Your task to perform on an android device: check battery use Image 0: 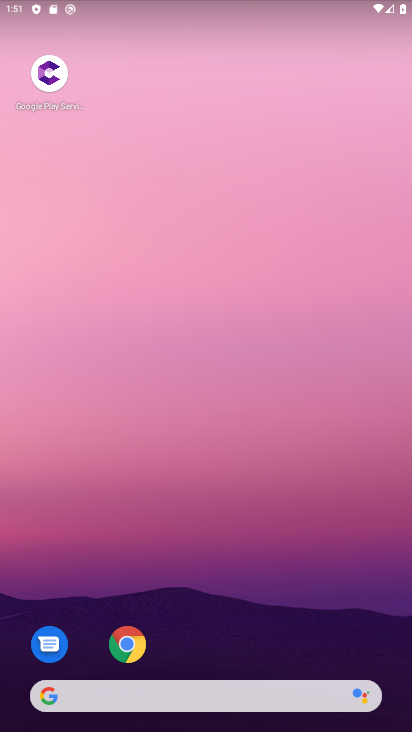
Step 0: drag from (330, 582) to (207, 3)
Your task to perform on an android device: check battery use Image 1: 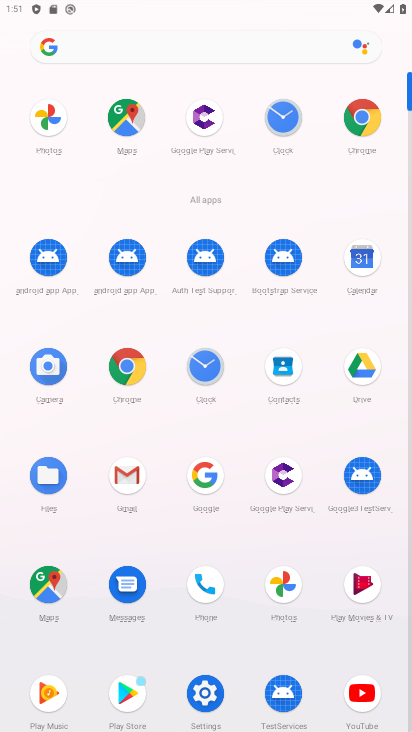
Step 1: click (196, 714)
Your task to perform on an android device: check battery use Image 2: 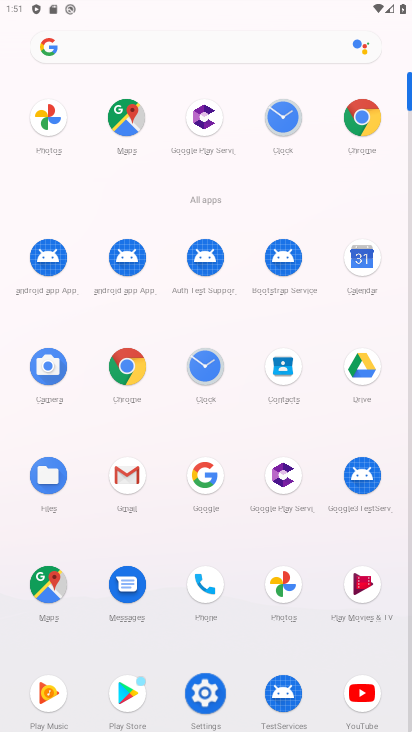
Step 2: click (208, 682)
Your task to perform on an android device: check battery use Image 3: 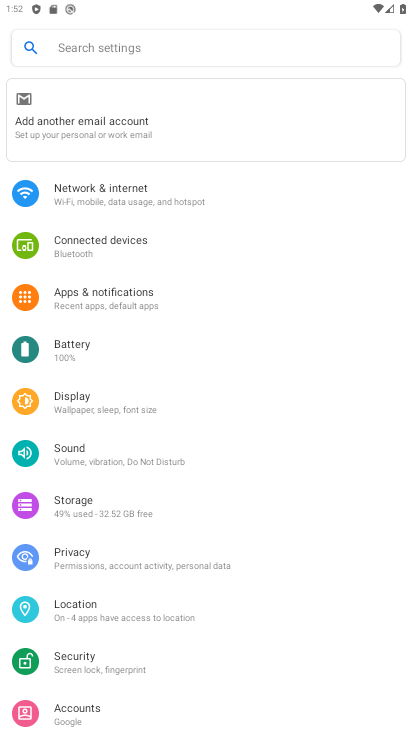
Step 3: click (61, 342)
Your task to perform on an android device: check battery use Image 4: 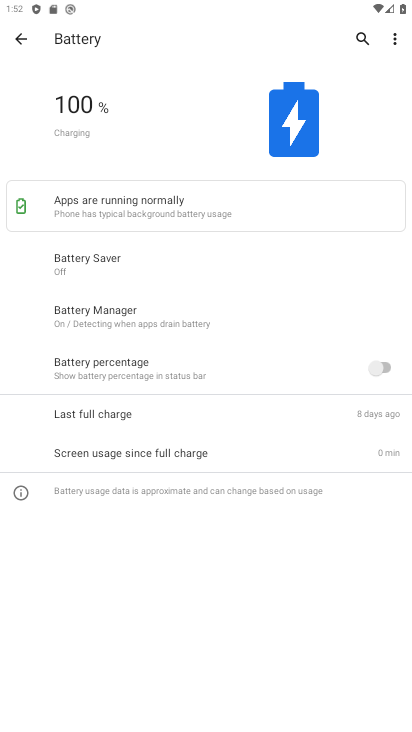
Step 4: click (406, 40)
Your task to perform on an android device: check battery use Image 5: 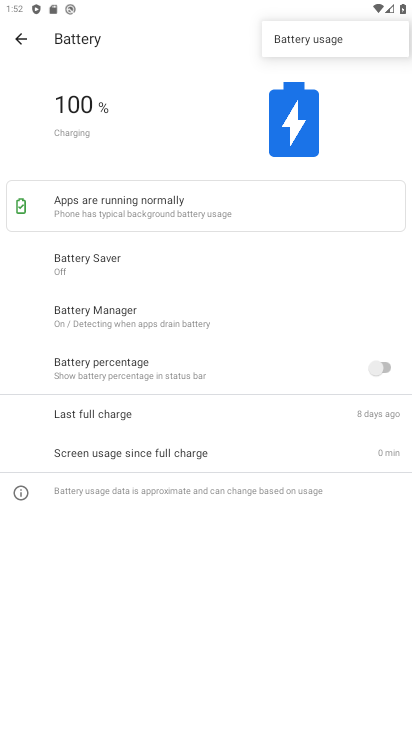
Step 5: click (344, 46)
Your task to perform on an android device: check battery use Image 6: 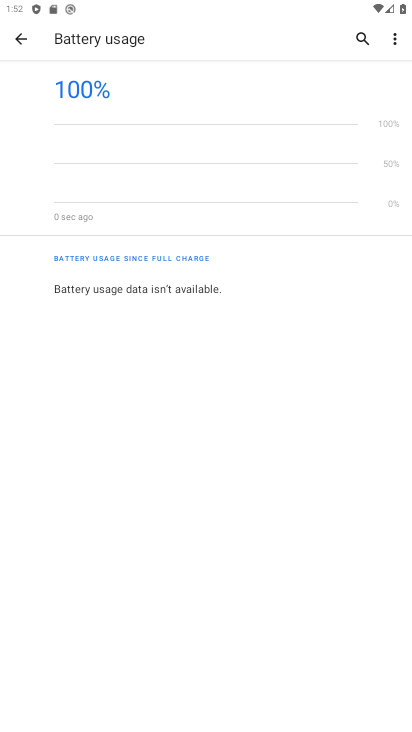
Step 6: task complete